Your task to perform on an android device: change your default location settings in chrome Image 0: 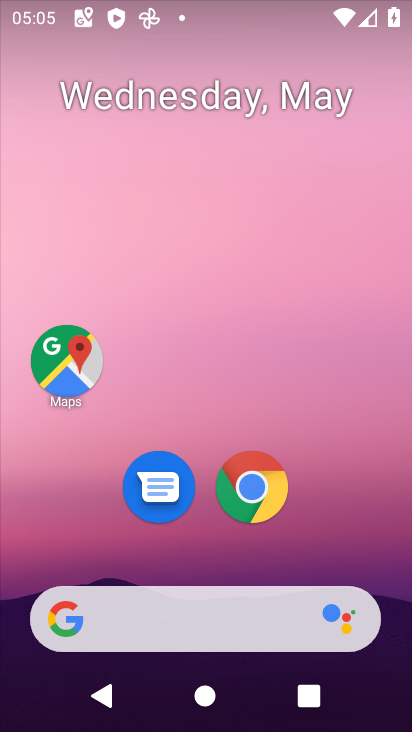
Step 0: click (279, 497)
Your task to perform on an android device: change your default location settings in chrome Image 1: 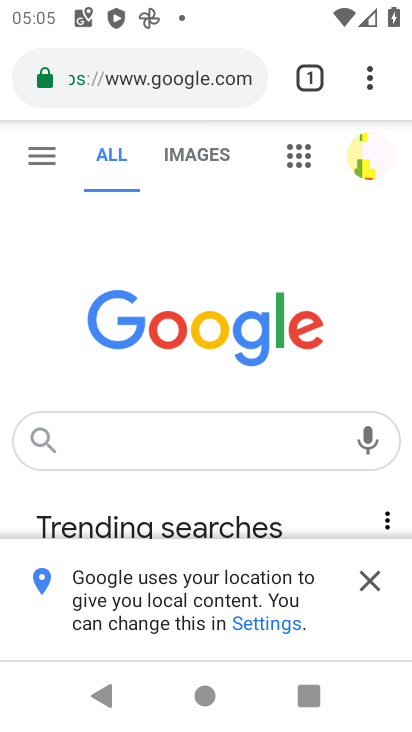
Step 1: click (381, 64)
Your task to perform on an android device: change your default location settings in chrome Image 2: 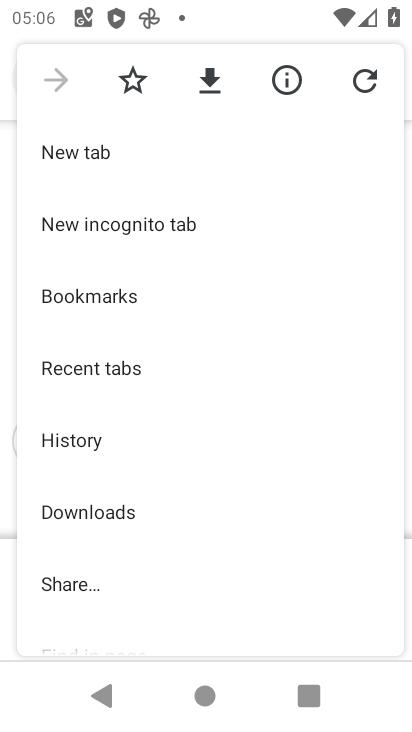
Step 2: drag from (166, 535) to (143, 233)
Your task to perform on an android device: change your default location settings in chrome Image 3: 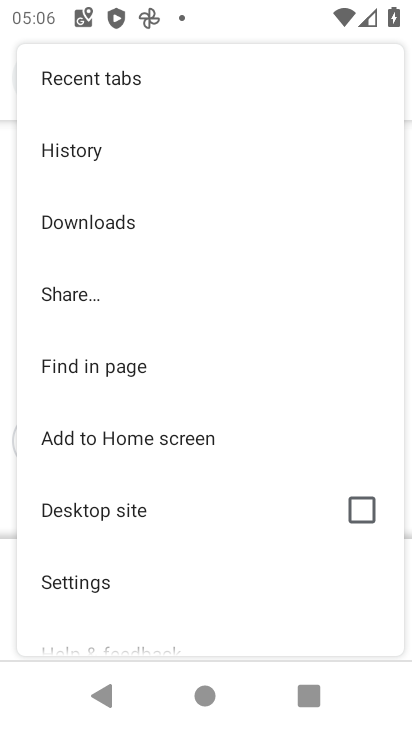
Step 3: click (175, 593)
Your task to perform on an android device: change your default location settings in chrome Image 4: 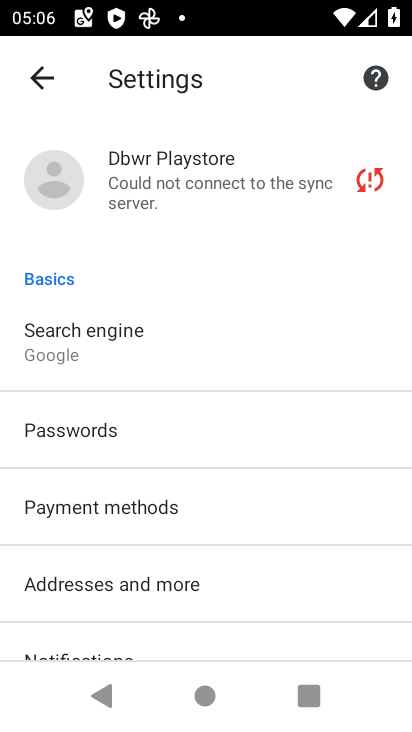
Step 4: drag from (177, 551) to (188, 244)
Your task to perform on an android device: change your default location settings in chrome Image 5: 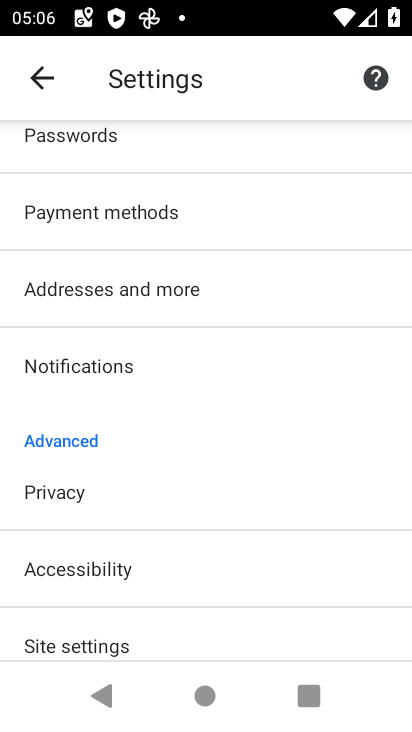
Step 5: click (229, 308)
Your task to perform on an android device: change your default location settings in chrome Image 6: 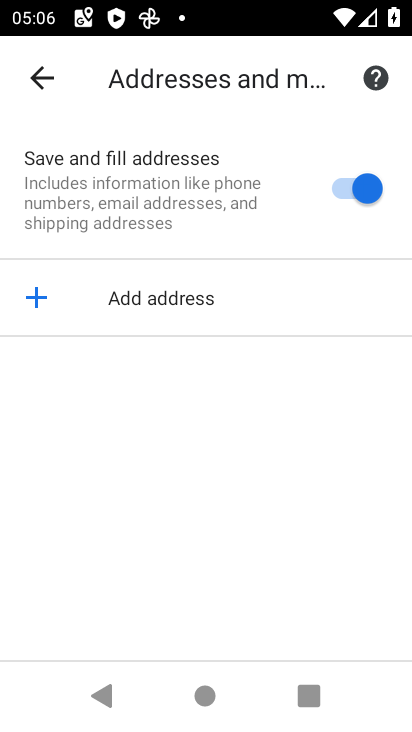
Step 6: task complete